Your task to perform on an android device: Toggle the flashlight Image 0: 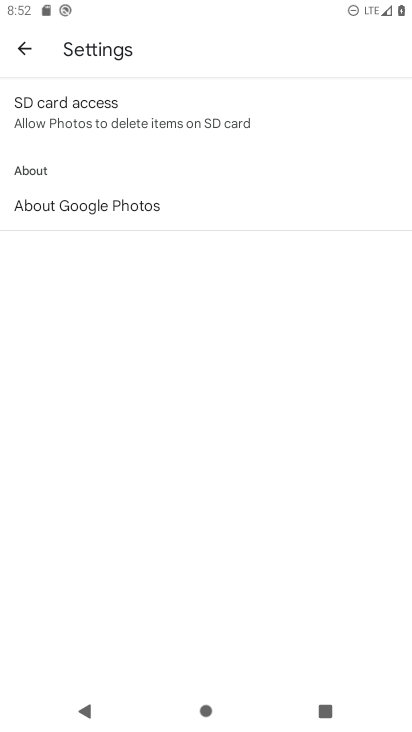
Step 0: press home button
Your task to perform on an android device: Toggle the flashlight Image 1: 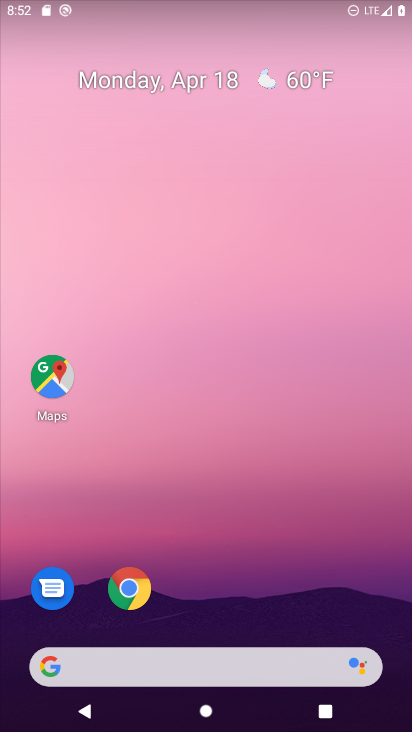
Step 1: drag from (223, 14) to (204, 600)
Your task to perform on an android device: Toggle the flashlight Image 2: 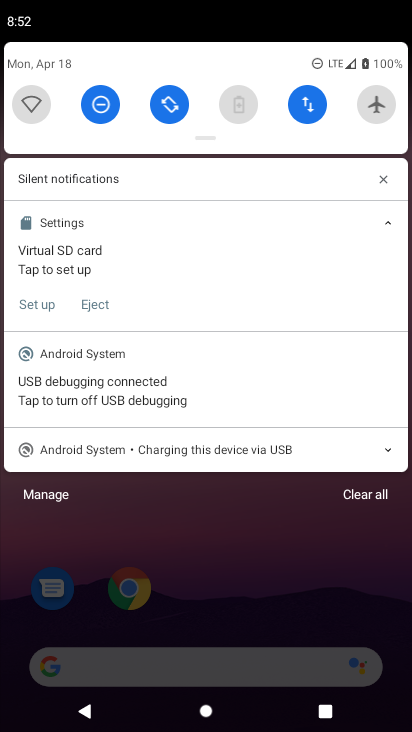
Step 2: drag from (205, 143) to (192, 417)
Your task to perform on an android device: Toggle the flashlight Image 3: 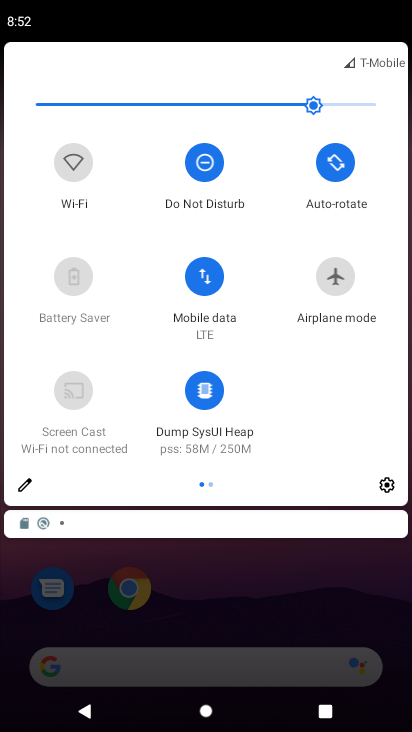
Step 3: drag from (326, 450) to (242, 459)
Your task to perform on an android device: Toggle the flashlight Image 4: 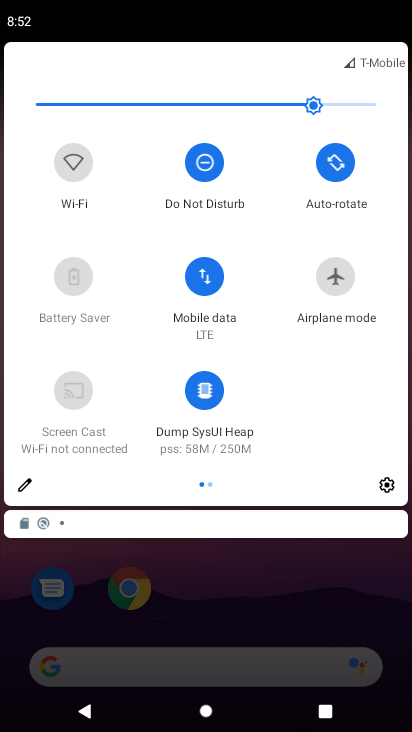
Step 4: click (14, 484)
Your task to perform on an android device: Toggle the flashlight Image 5: 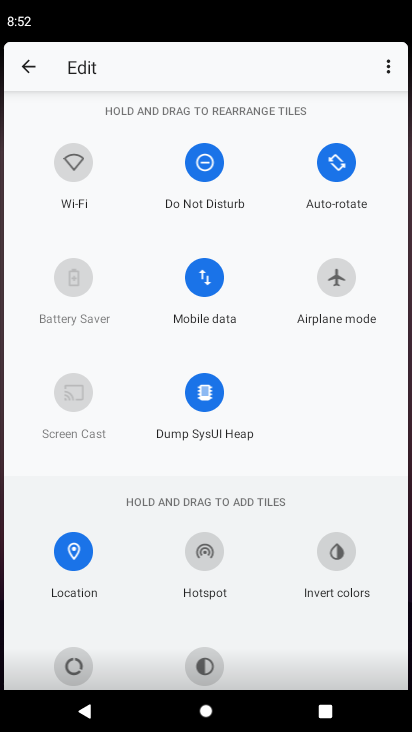
Step 5: task complete